Your task to perform on an android device: Set the phone to "Do not disturb". Image 0: 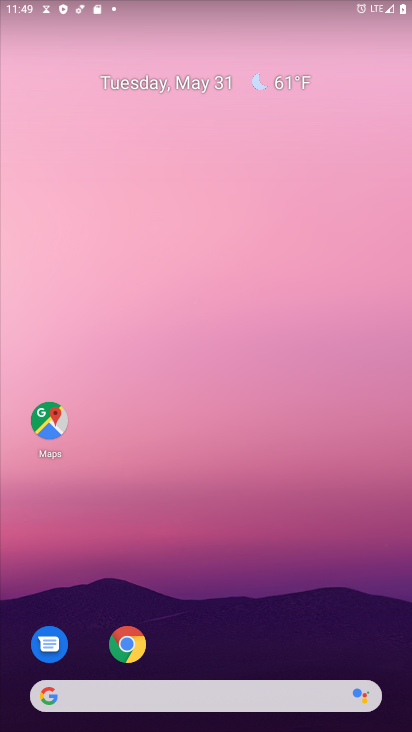
Step 0: drag from (183, 16) to (237, 540)
Your task to perform on an android device: Set the phone to "Do not disturb". Image 1: 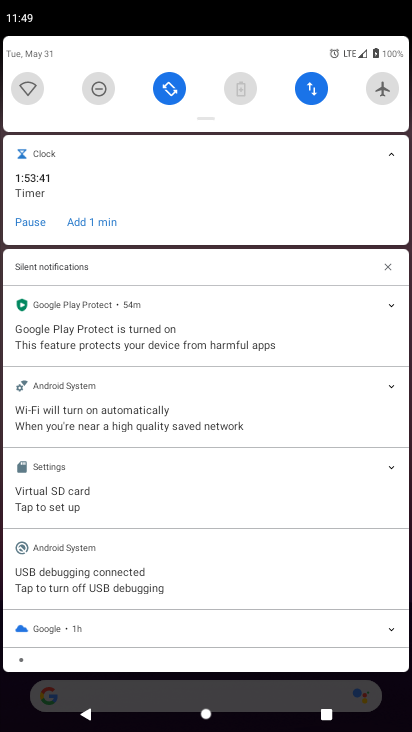
Step 1: click (97, 92)
Your task to perform on an android device: Set the phone to "Do not disturb". Image 2: 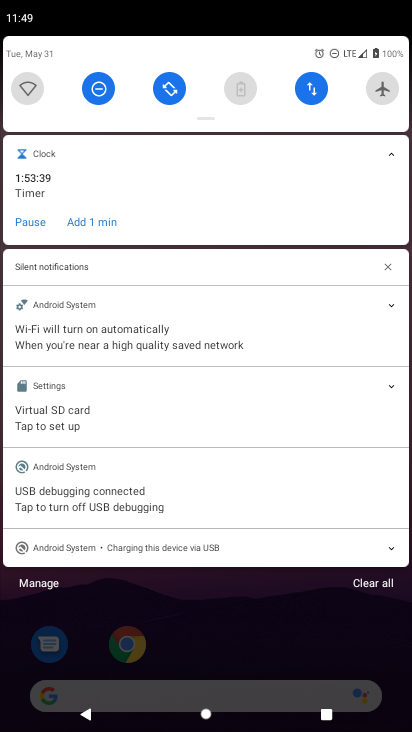
Step 2: task complete